Your task to perform on an android device: change the upload size in google photos Image 0: 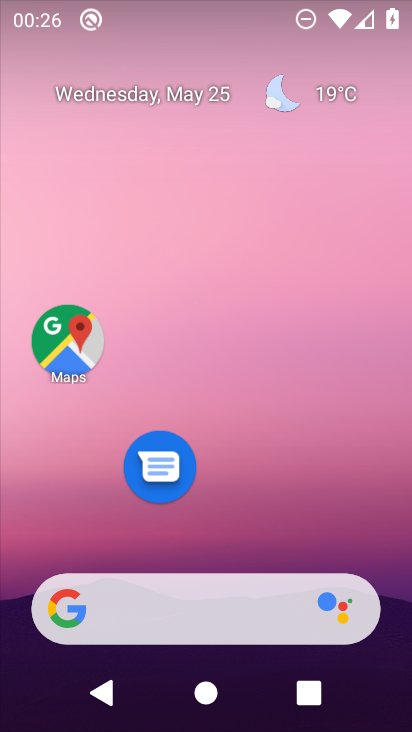
Step 0: drag from (181, 555) to (113, 657)
Your task to perform on an android device: change the upload size in google photos Image 1: 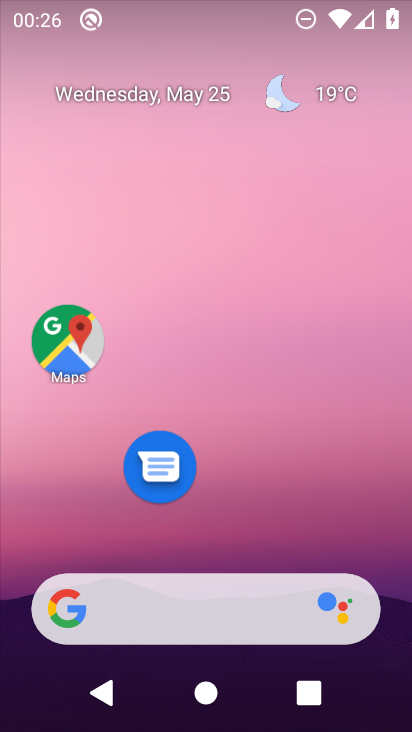
Step 1: drag from (229, 546) to (296, 162)
Your task to perform on an android device: change the upload size in google photos Image 2: 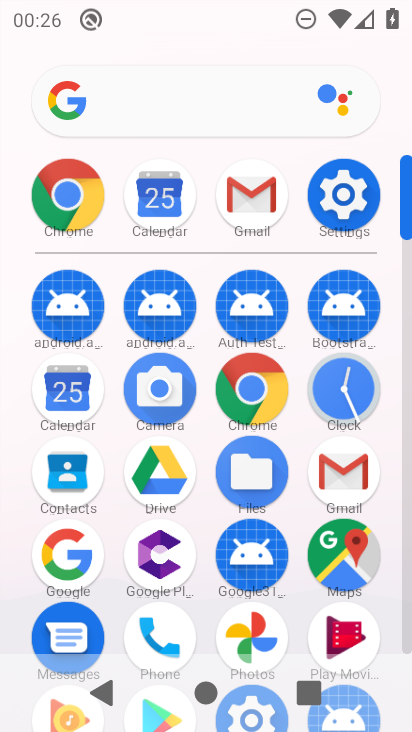
Step 2: click (251, 626)
Your task to perform on an android device: change the upload size in google photos Image 3: 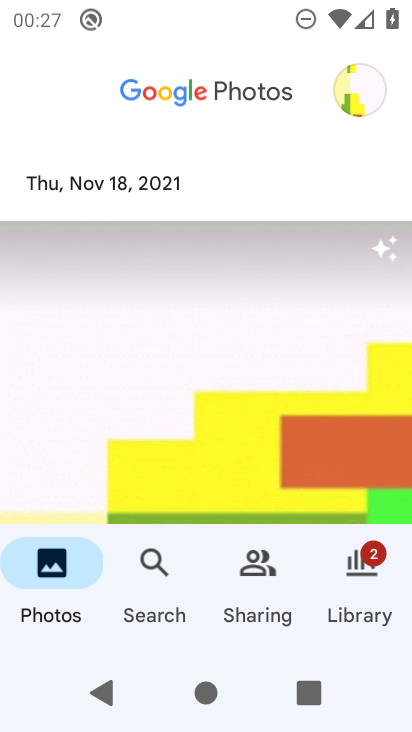
Step 3: click (360, 95)
Your task to perform on an android device: change the upload size in google photos Image 4: 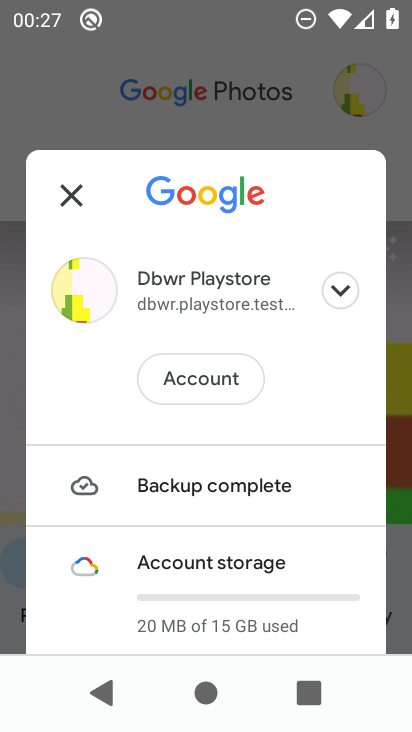
Step 4: drag from (253, 540) to (349, 78)
Your task to perform on an android device: change the upload size in google photos Image 5: 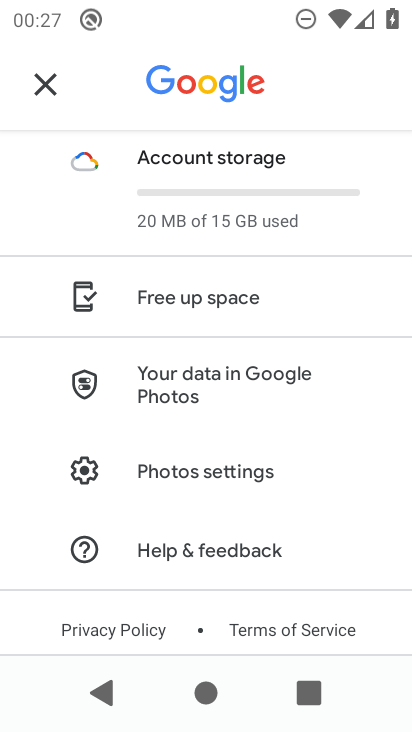
Step 5: click (180, 482)
Your task to perform on an android device: change the upload size in google photos Image 6: 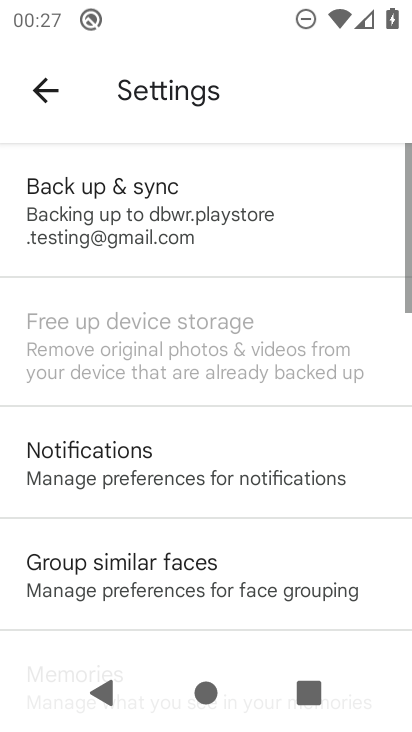
Step 6: drag from (215, 426) to (273, 661)
Your task to perform on an android device: change the upload size in google photos Image 7: 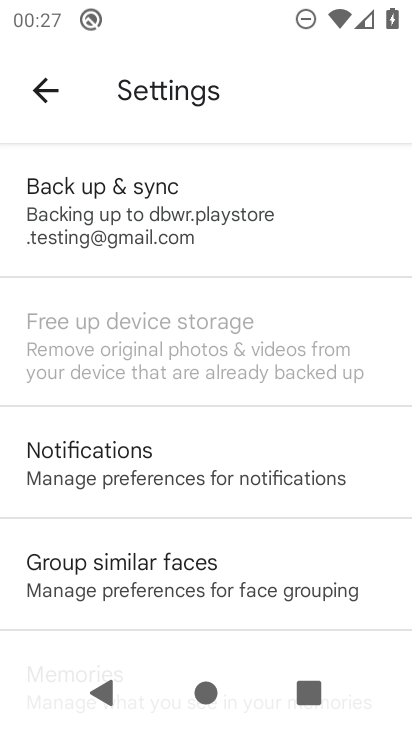
Step 7: click (233, 222)
Your task to perform on an android device: change the upload size in google photos Image 8: 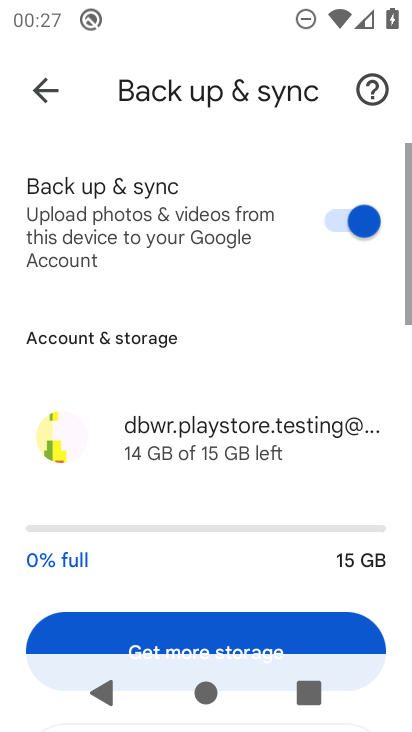
Step 8: drag from (273, 437) to (392, 0)
Your task to perform on an android device: change the upload size in google photos Image 9: 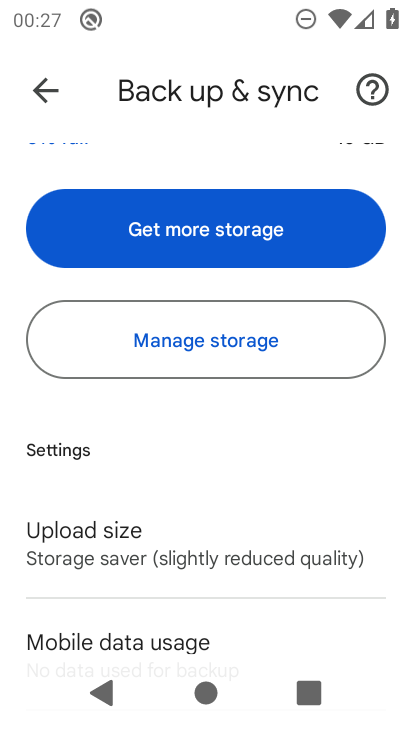
Step 9: click (127, 564)
Your task to perform on an android device: change the upload size in google photos Image 10: 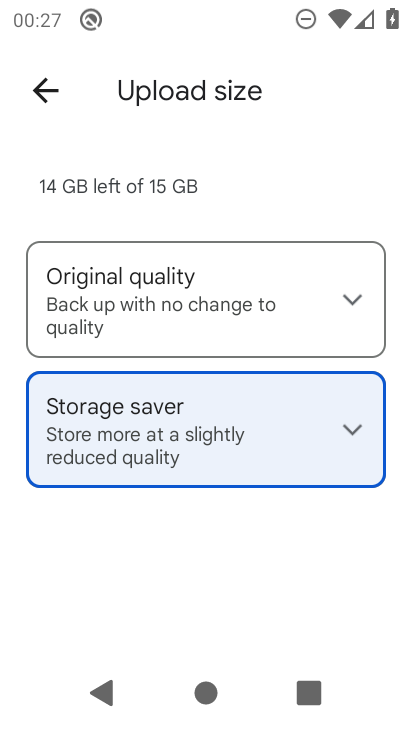
Step 10: click (227, 317)
Your task to perform on an android device: change the upload size in google photos Image 11: 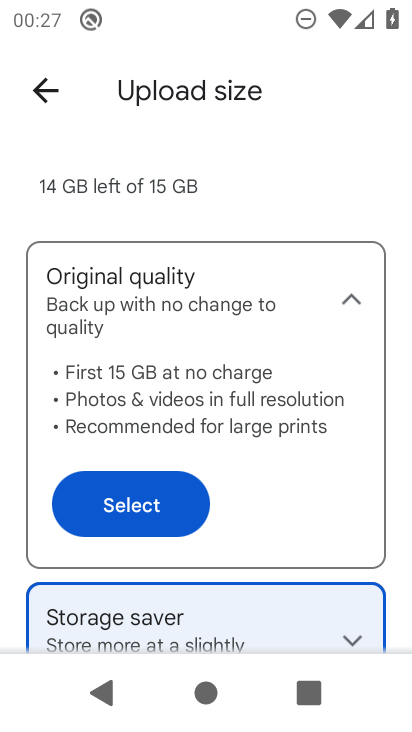
Step 11: click (117, 501)
Your task to perform on an android device: change the upload size in google photos Image 12: 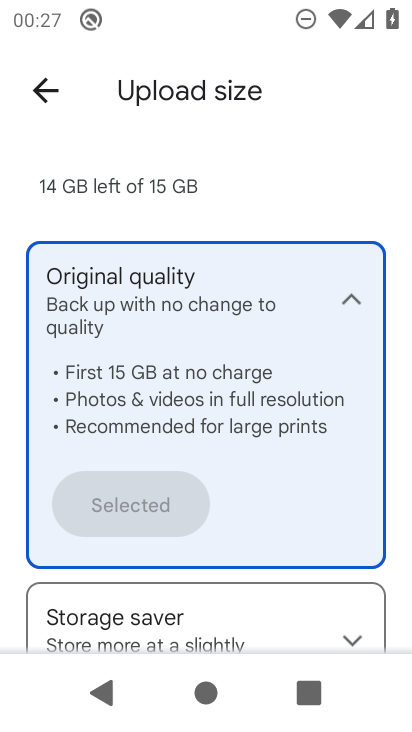
Step 12: task complete